Your task to perform on an android device: Search for pizza restaurants on Maps Image 0: 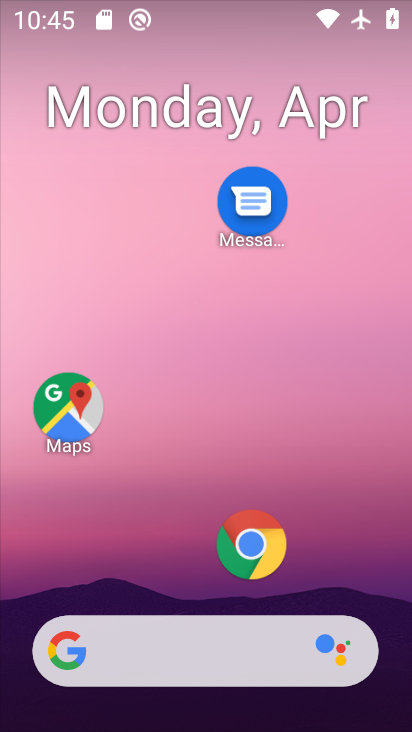
Step 0: click (74, 401)
Your task to perform on an android device: Search for pizza restaurants on Maps Image 1: 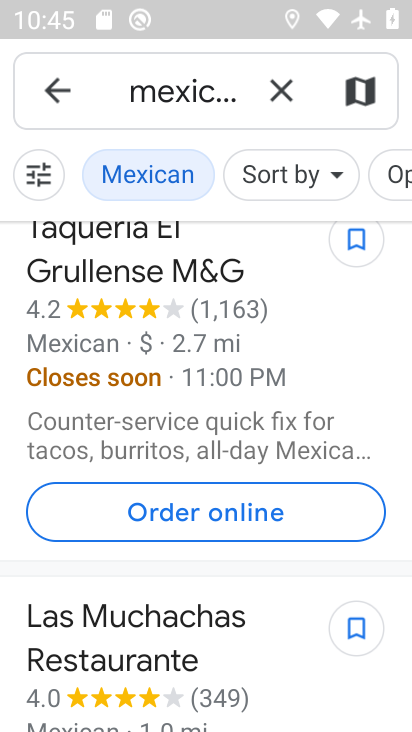
Step 1: click (278, 87)
Your task to perform on an android device: Search for pizza restaurants on Maps Image 2: 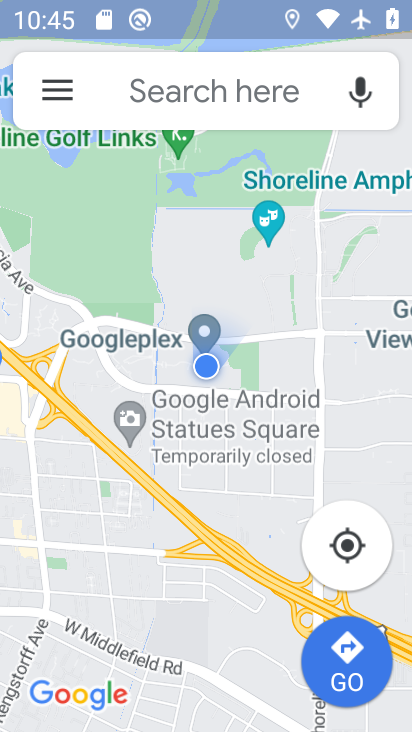
Step 2: click (197, 88)
Your task to perform on an android device: Search for pizza restaurants on Maps Image 3: 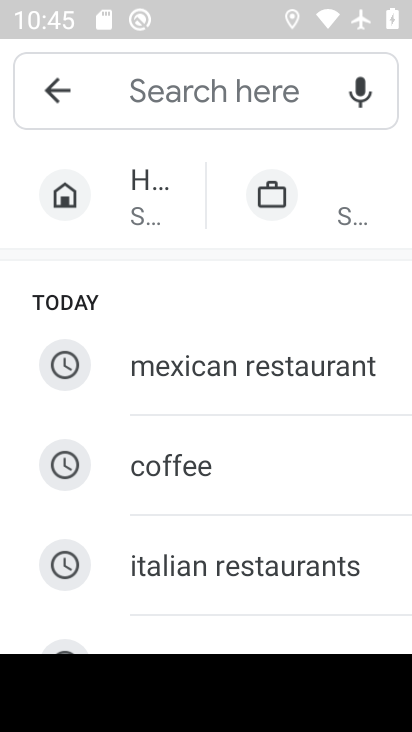
Step 3: drag from (164, 539) to (195, 257)
Your task to perform on an android device: Search for pizza restaurants on Maps Image 4: 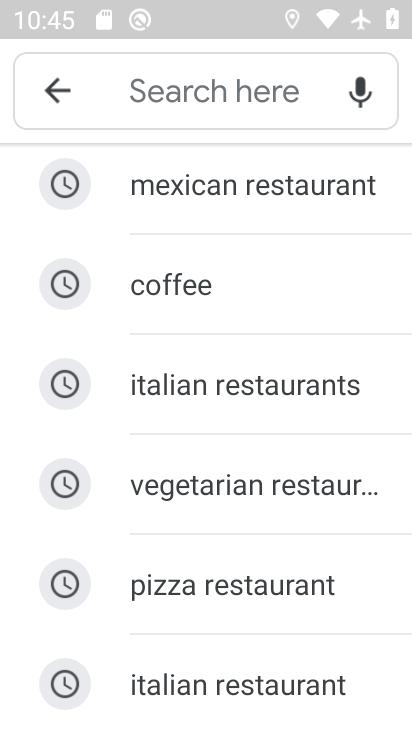
Step 4: click (173, 590)
Your task to perform on an android device: Search for pizza restaurants on Maps Image 5: 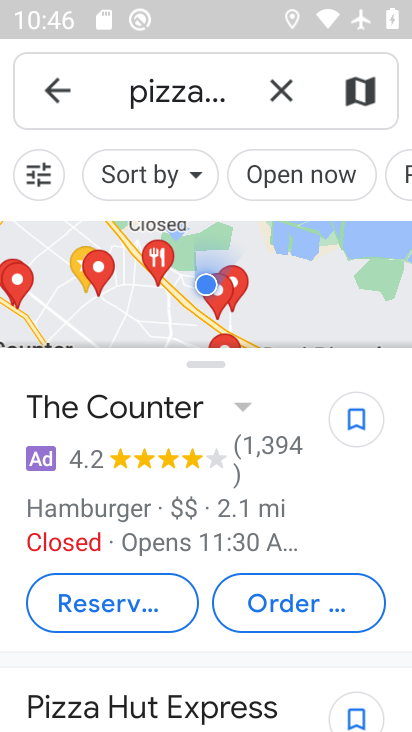
Step 5: task complete